Your task to perform on an android device: turn off airplane mode Image 0: 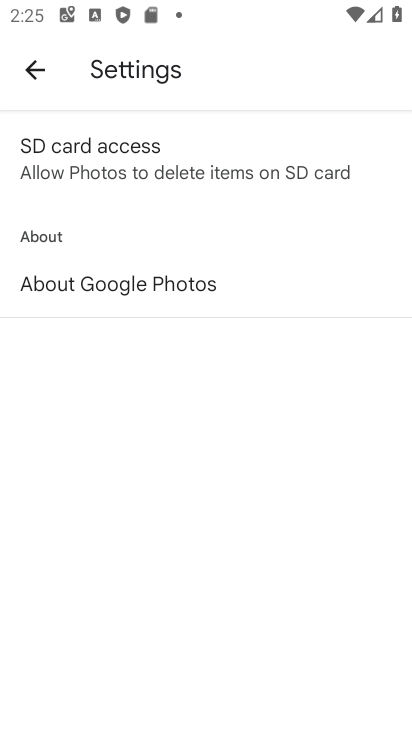
Step 0: press home button
Your task to perform on an android device: turn off airplane mode Image 1: 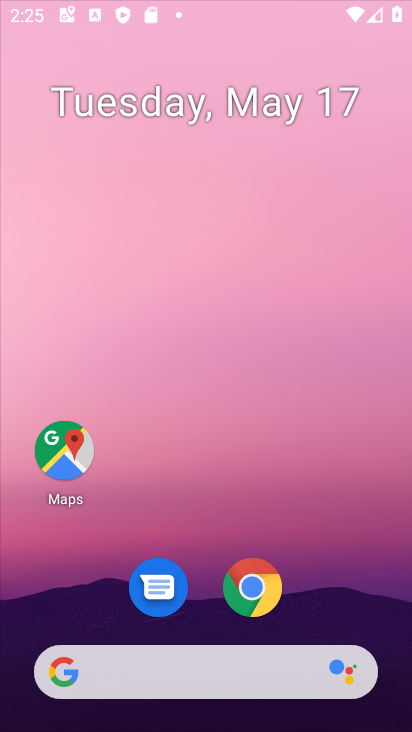
Step 1: drag from (204, 614) to (409, 10)
Your task to perform on an android device: turn off airplane mode Image 2: 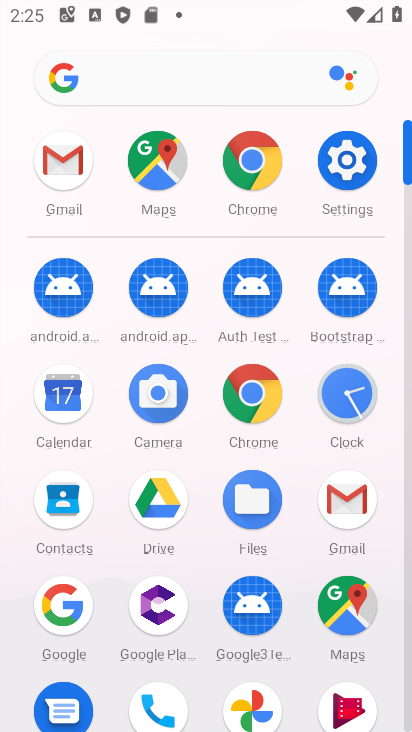
Step 2: click (332, 162)
Your task to perform on an android device: turn off airplane mode Image 3: 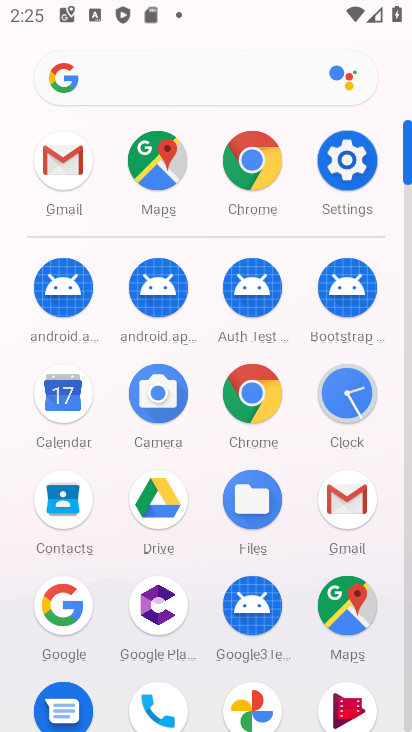
Step 3: click (332, 162)
Your task to perform on an android device: turn off airplane mode Image 4: 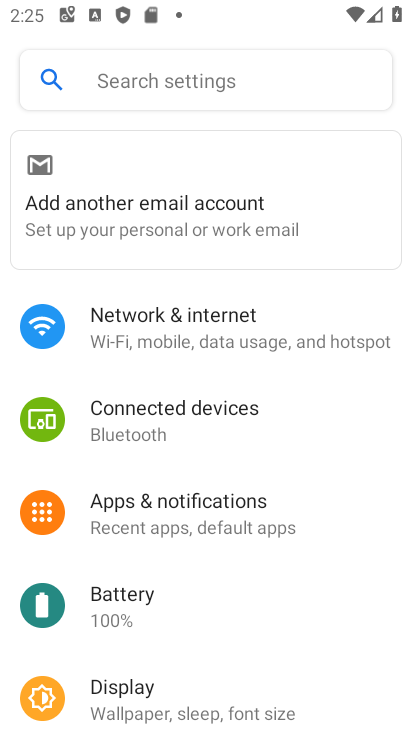
Step 4: click (143, 317)
Your task to perform on an android device: turn off airplane mode Image 5: 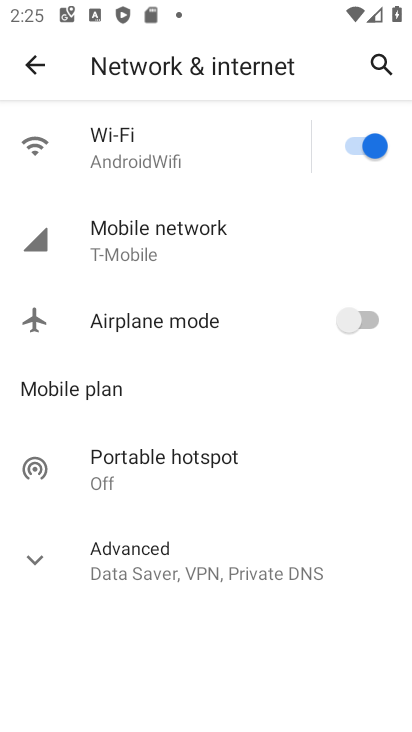
Step 5: task complete